Your task to perform on an android device: Go to Google maps Image 0: 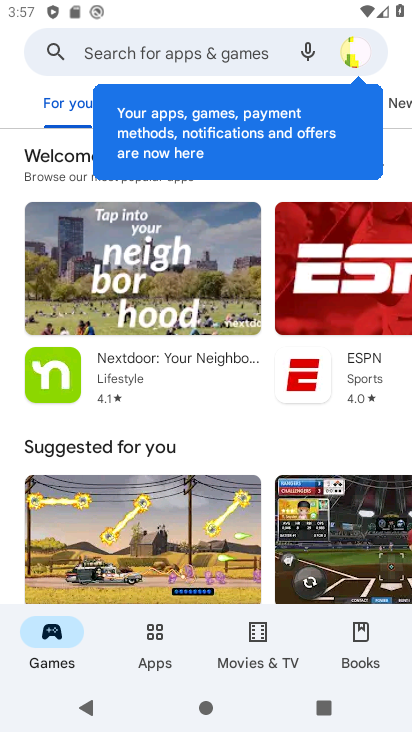
Step 0: press home button
Your task to perform on an android device: Go to Google maps Image 1: 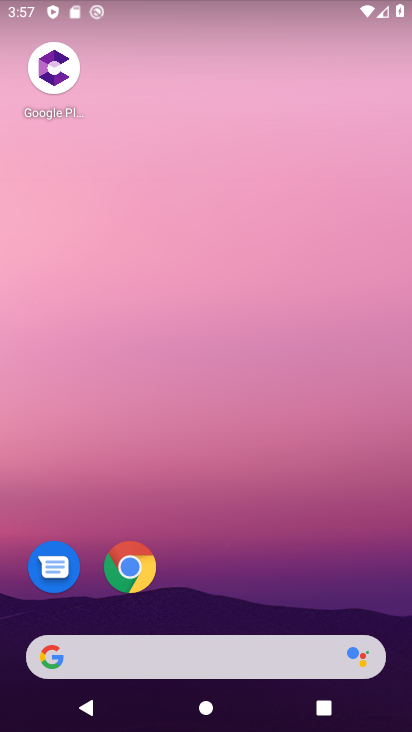
Step 1: drag from (47, 409) to (401, 480)
Your task to perform on an android device: Go to Google maps Image 2: 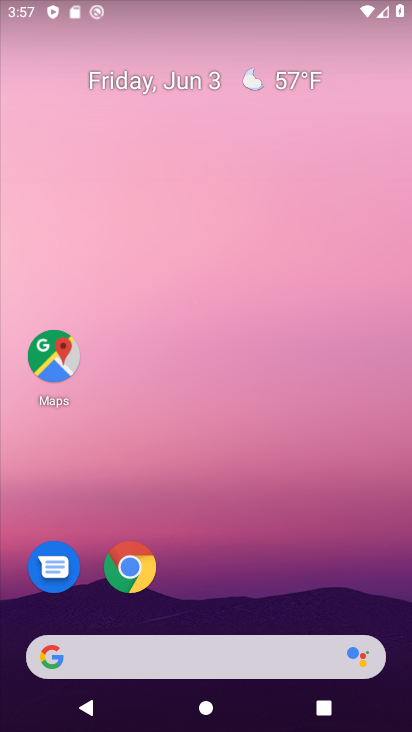
Step 2: click (74, 364)
Your task to perform on an android device: Go to Google maps Image 3: 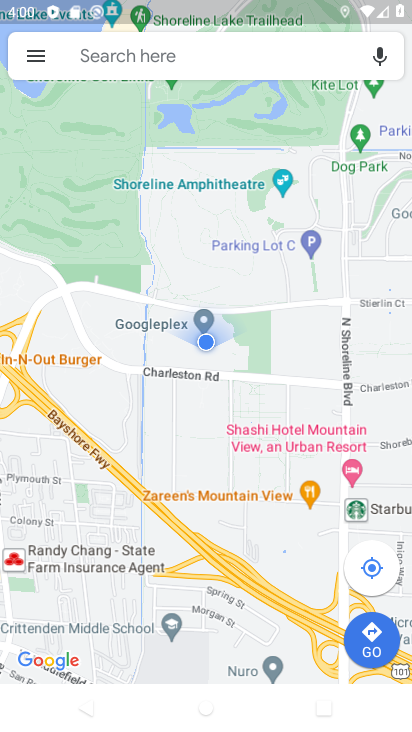
Step 3: task complete